Your task to perform on an android device: show emergency info Image 0: 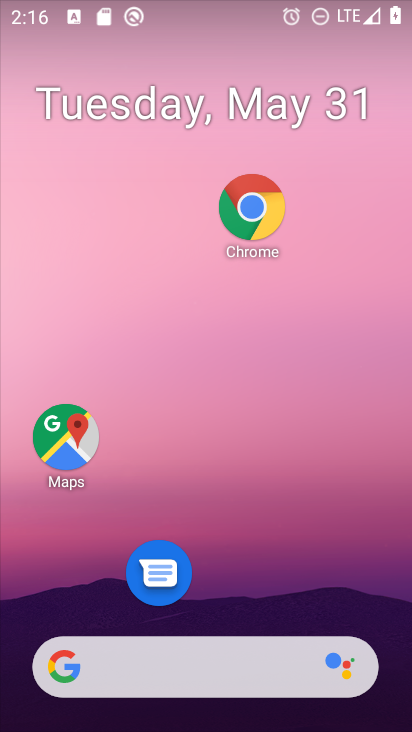
Step 0: drag from (240, 663) to (240, 121)
Your task to perform on an android device: show emergency info Image 1: 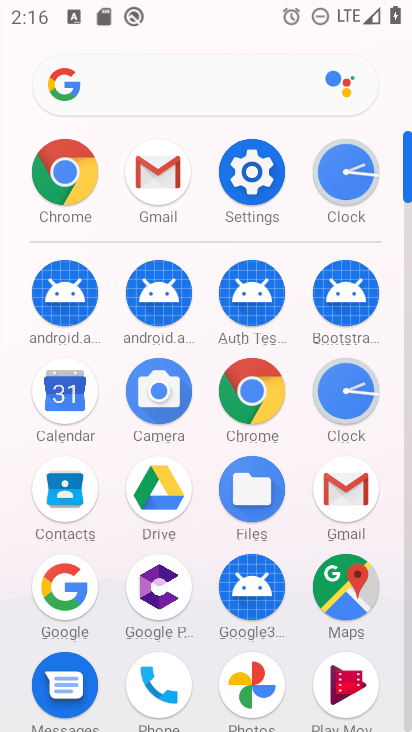
Step 1: click (248, 167)
Your task to perform on an android device: show emergency info Image 2: 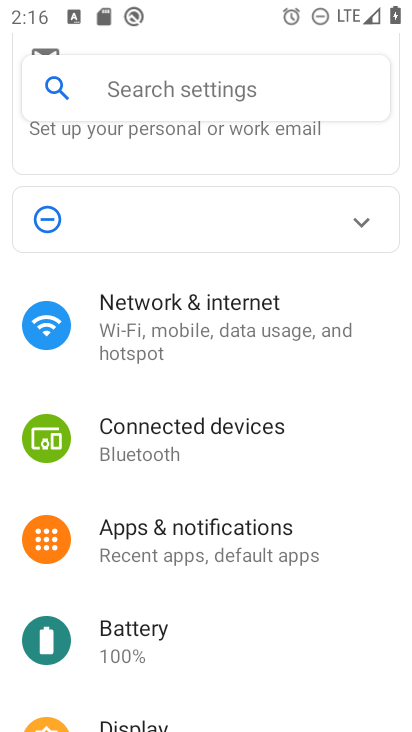
Step 2: drag from (185, 568) to (240, 38)
Your task to perform on an android device: show emergency info Image 3: 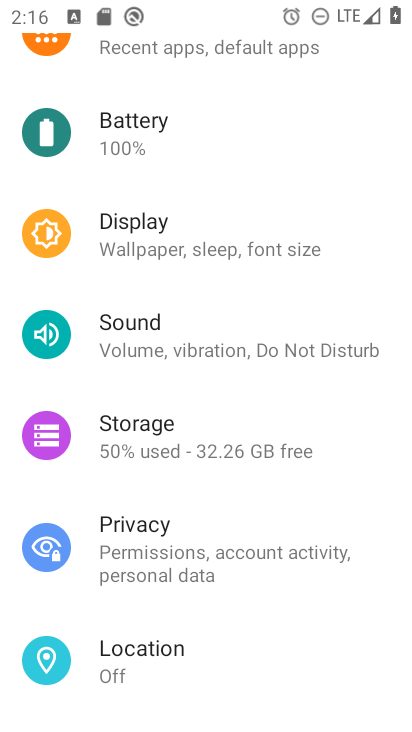
Step 3: drag from (219, 580) to (206, 239)
Your task to perform on an android device: show emergency info Image 4: 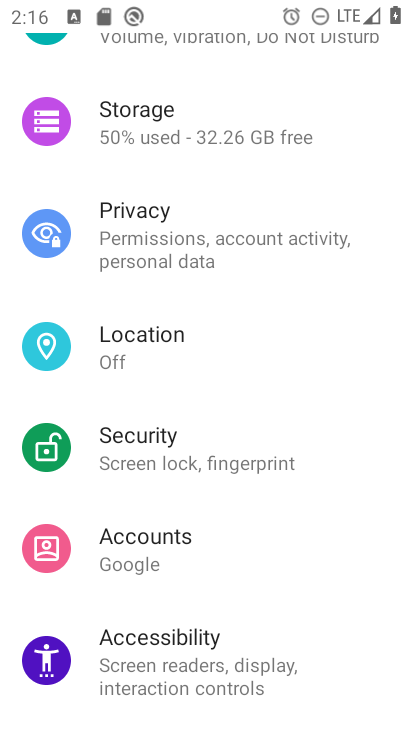
Step 4: drag from (162, 532) to (167, 271)
Your task to perform on an android device: show emergency info Image 5: 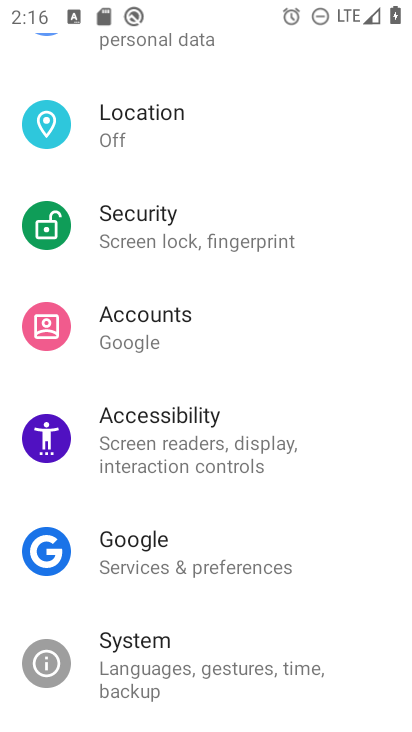
Step 5: drag from (185, 522) to (182, 225)
Your task to perform on an android device: show emergency info Image 6: 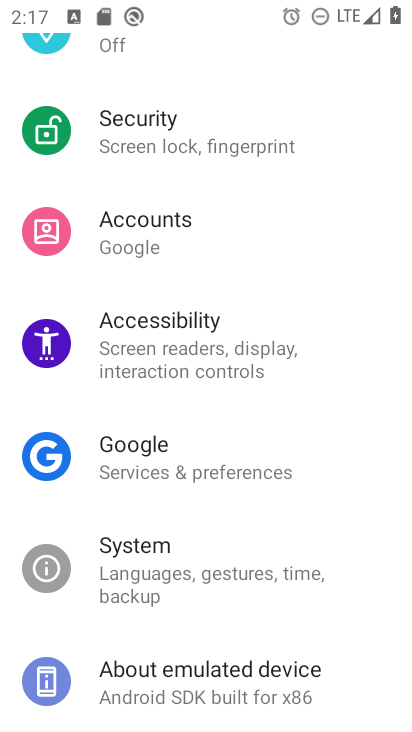
Step 6: click (213, 684)
Your task to perform on an android device: show emergency info Image 7: 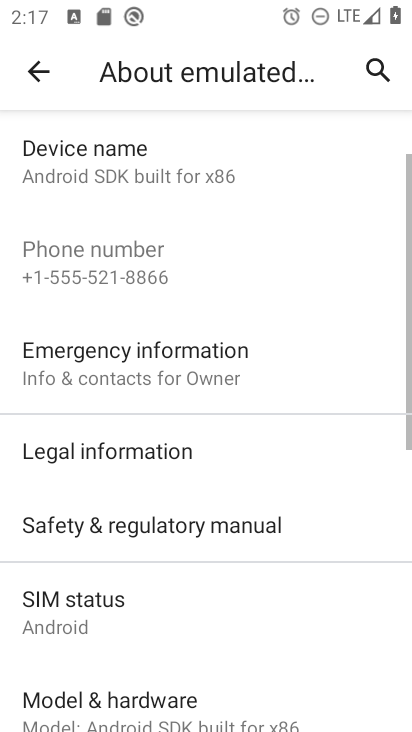
Step 7: click (100, 376)
Your task to perform on an android device: show emergency info Image 8: 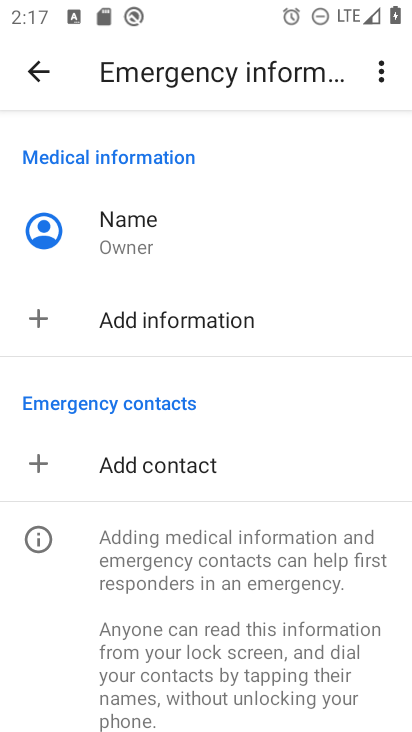
Step 8: task complete